Your task to perform on an android device: turn on airplane mode Image 0: 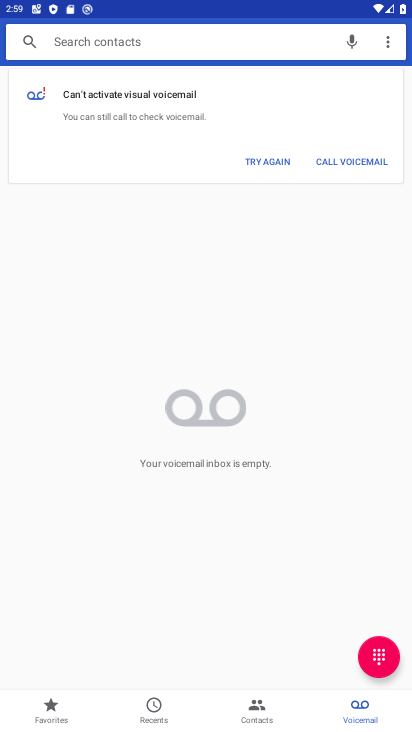
Step 0: press home button
Your task to perform on an android device: turn on airplane mode Image 1: 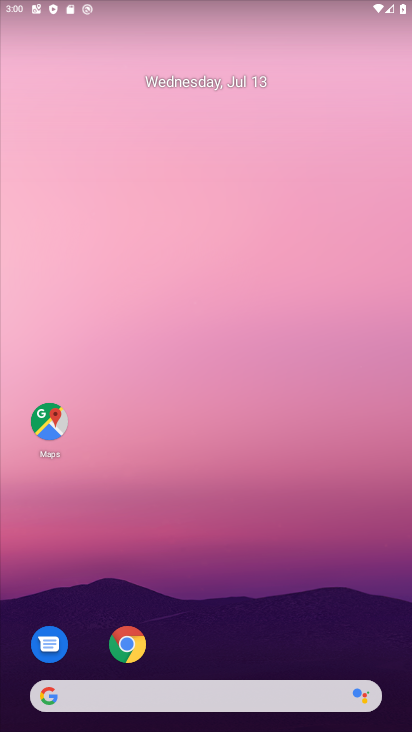
Step 1: drag from (332, 603) to (279, 154)
Your task to perform on an android device: turn on airplane mode Image 2: 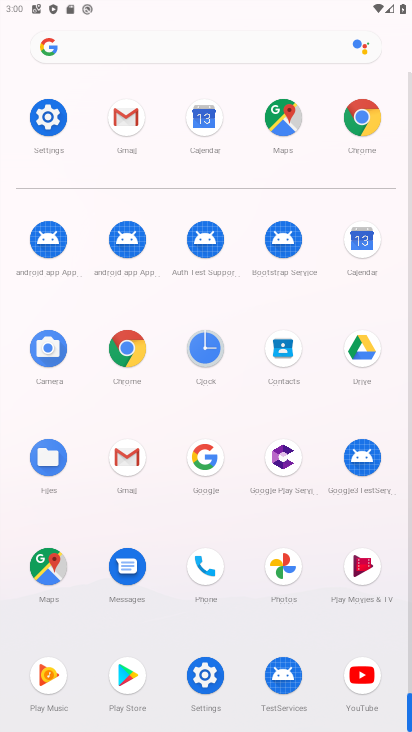
Step 2: click (55, 116)
Your task to perform on an android device: turn on airplane mode Image 3: 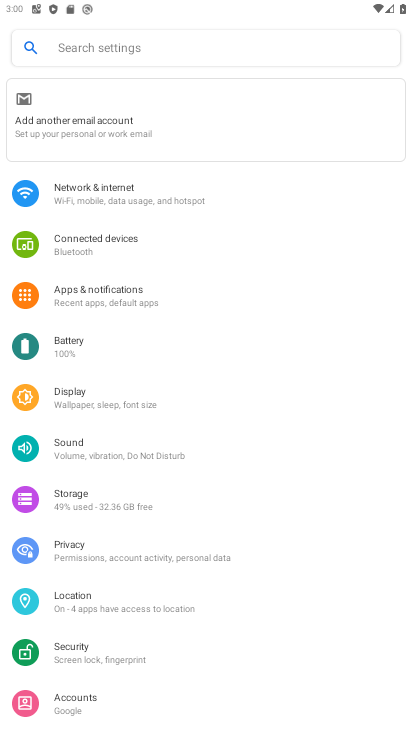
Step 3: click (130, 208)
Your task to perform on an android device: turn on airplane mode Image 4: 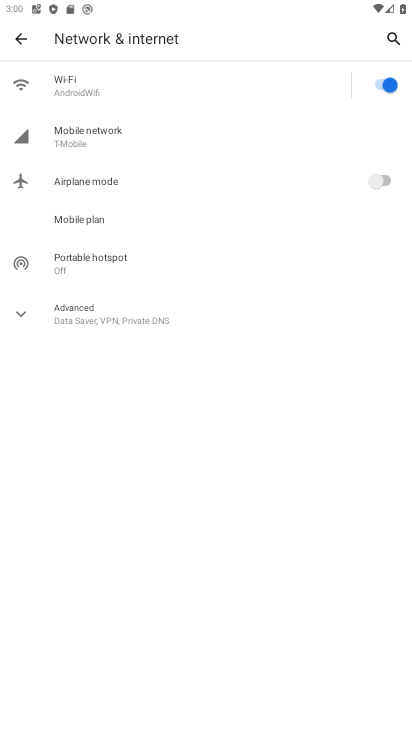
Step 4: click (379, 180)
Your task to perform on an android device: turn on airplane mode Image 5: 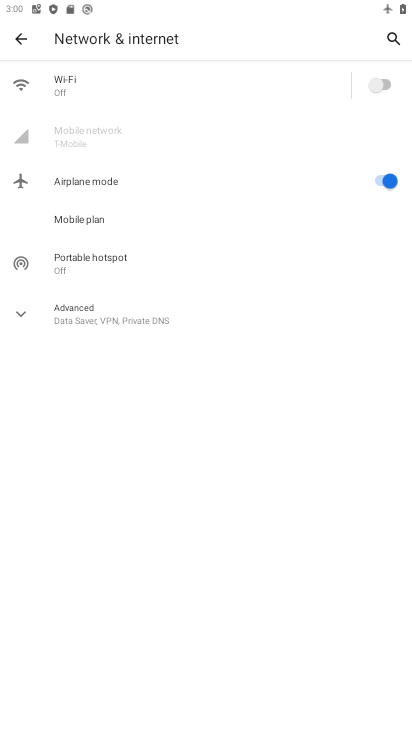
Step 5: task complete